Your task to perform on an android device: empty trash in the gmail app Image 0: 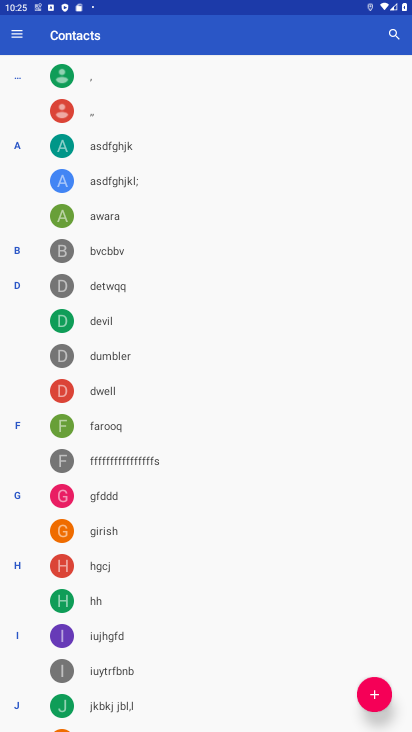
Step 0: press home button
Your task to perform on an android device: empty trash in the gmail app Image 1: 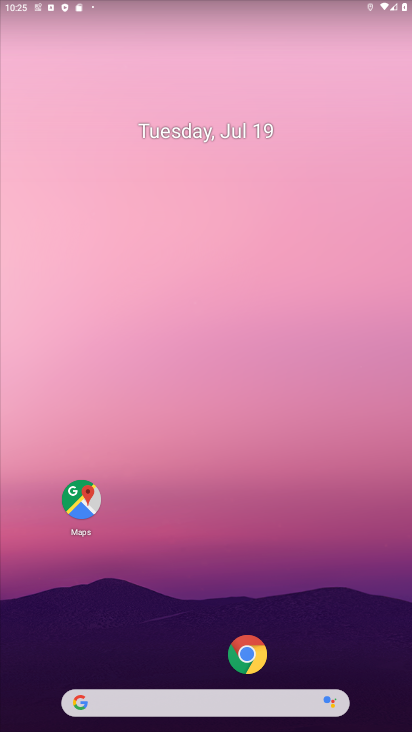
Step 1: drag from (100, 638) to (103, 0)
Your task to perform on an android device: empty trash in the gmail app Image 2: 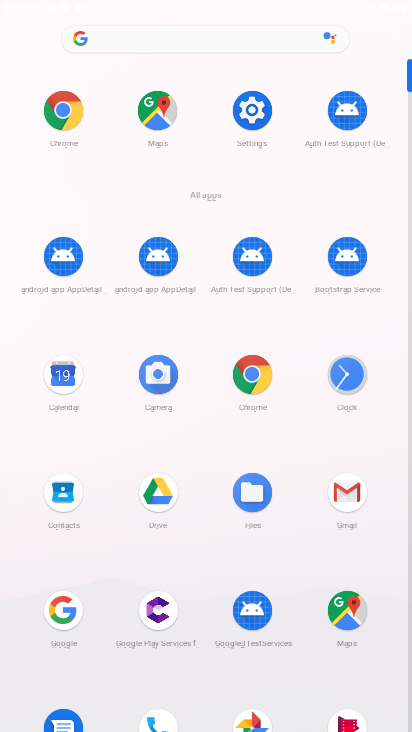
Step 2: click (338, 508)
Your task to perform on an android device: empty trash in the gmail app Image 3: 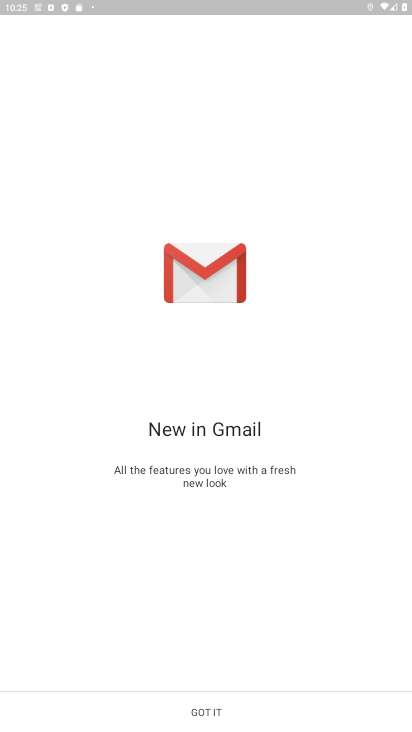
Step 3: click (217, 720)
Your task to perform on an android device: empty trash in the gmail app Image 4: 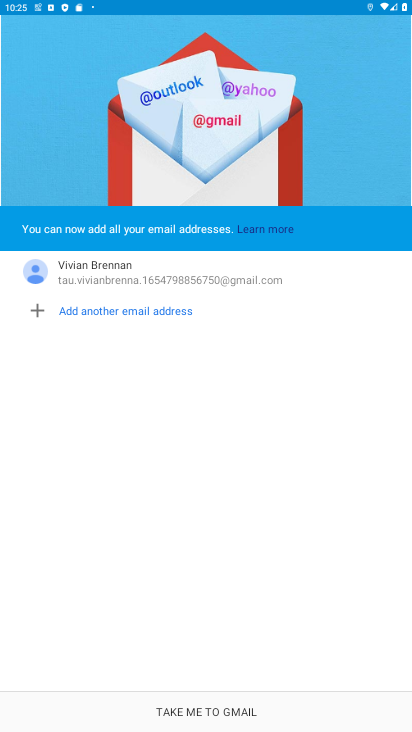
Step 4: click (217, 720)
Your task to perform on an android device: empty trash in the gmail app Image 5: 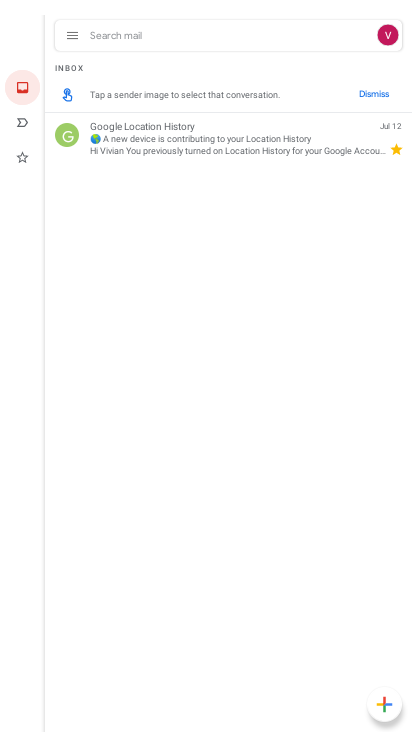
Step 5: click (69, 38)
Your task to perform on an android device: empty trash in the gmail app Image 6: 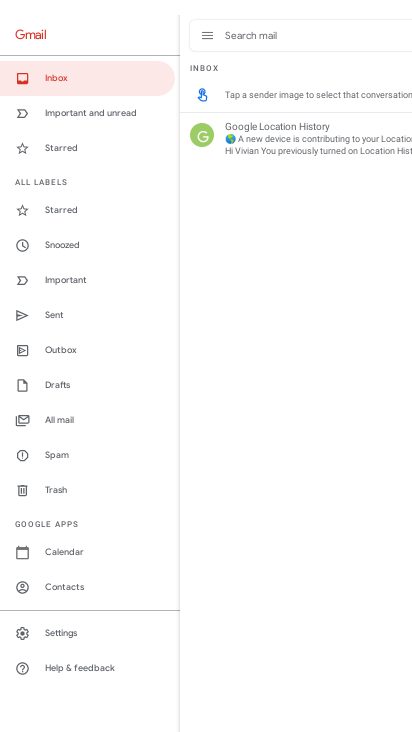
Step 6: click (61, 500)
Your task to perform on an android device: empty trash in the gmail app Image 7: 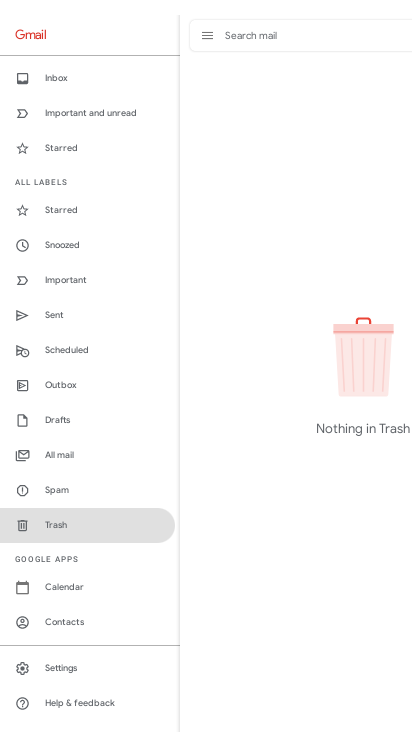
Step 7: task complete